Your task to perform on an android device: Play the last video I watched on Youtube Image 0: 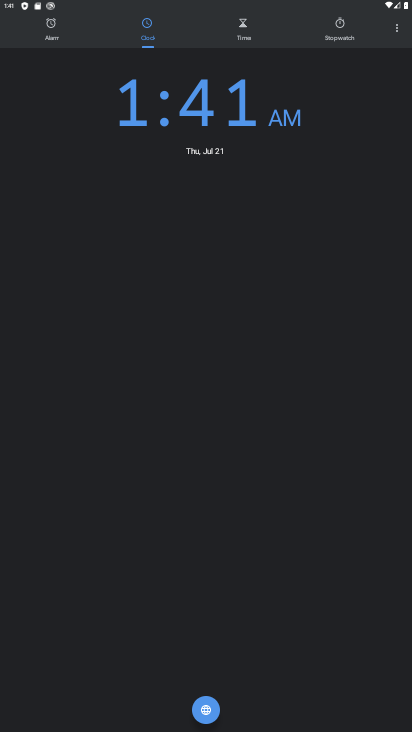
Step 0: press home button
Your task to perform on an android device: Play the last video I watched on Youtube Image 1: 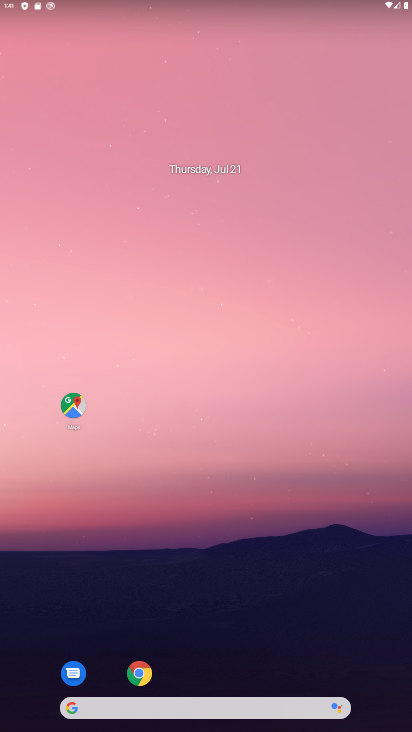
Step 1: drag from (173, 672) to (217, 122)
Your task to perform on an android device: Play the last video I watched on Youtube Image 2: 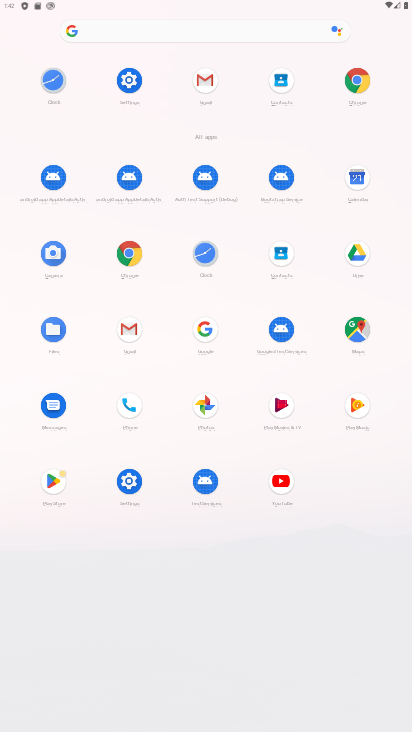
Step 2: click (279, 489)
Your task to perform on an android device: Play the last video I watched on Youtube Image 3: 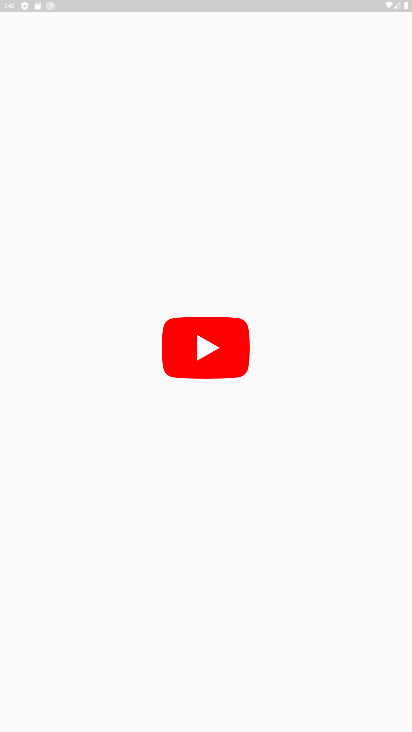
Step 3: click (280, 482)
Your task to perform on an android device: Play the last video I watched on Youtube Image 4: 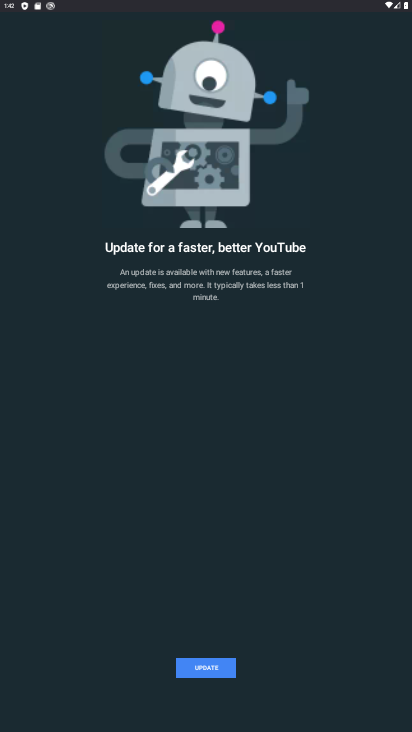
Step 4: click (192, 671)
Your task to perform on an android device: Play the last video I watched on Youtube Image 5: 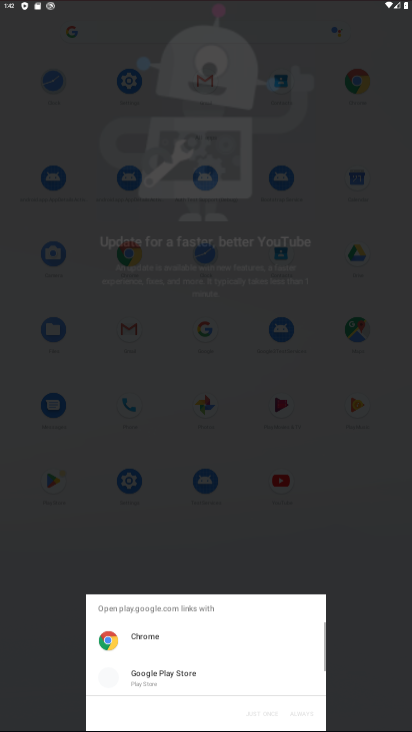
Step 5: click (208, 671)
Your task to perform on an android device: Play the last video I watched on Youtube Image 6: 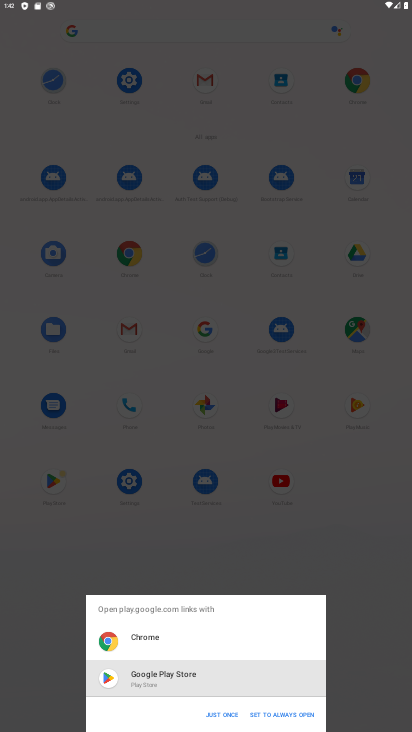
Step 6: click (268, 720)
Your task to perform on an android device: Play the last video I watched on Youtube Image 7: 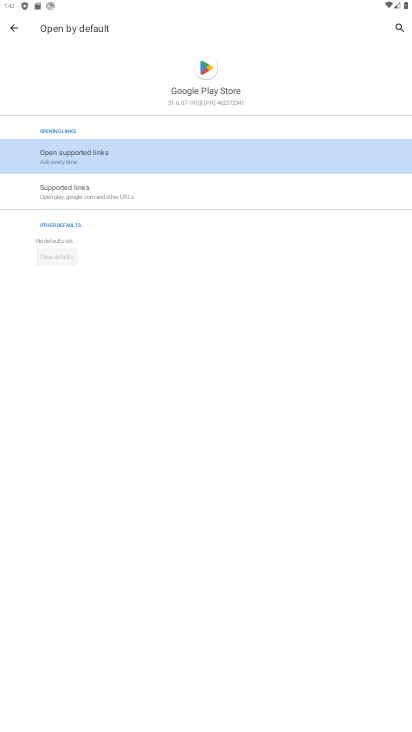
Step 7: click (74, 148)
Your task to perform on an android device: Play the last video I watched on Youtube Image 8: 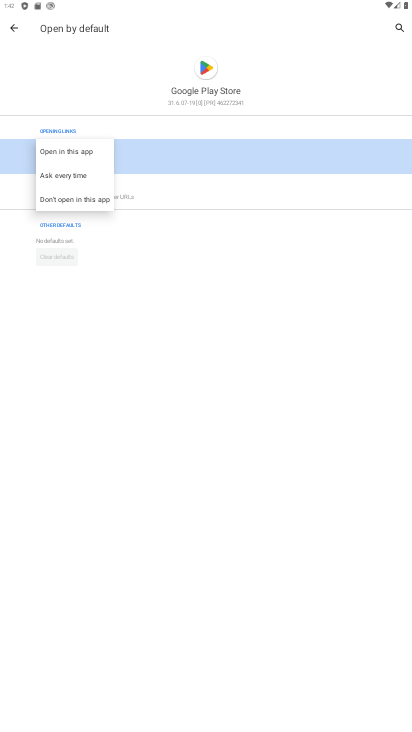
Step 8: click (60, 153)
Your task to perform on an android device: Play the last video I watched on Youtube Image 9: 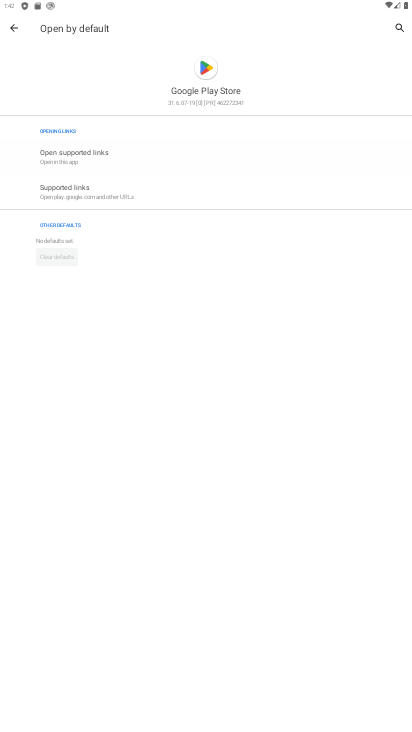
Step 9: click (14, 27)
Your task to perform on an android device: Play the last video I watched on Youtube Image 10: 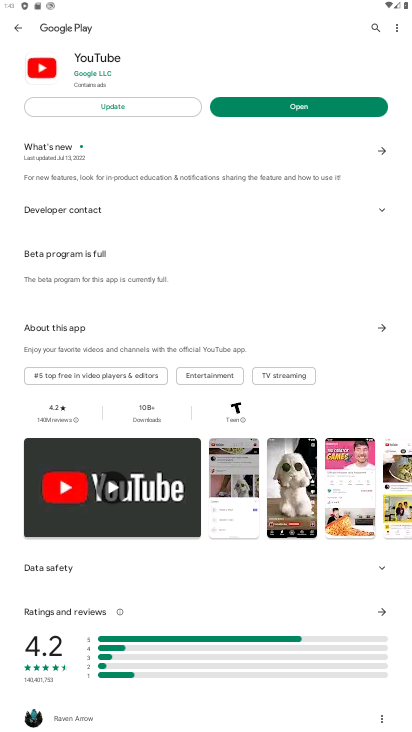
Step 10: click (71, 103)
Your task to perform on an android device: Play the last video I watched on Youtube Image 11: 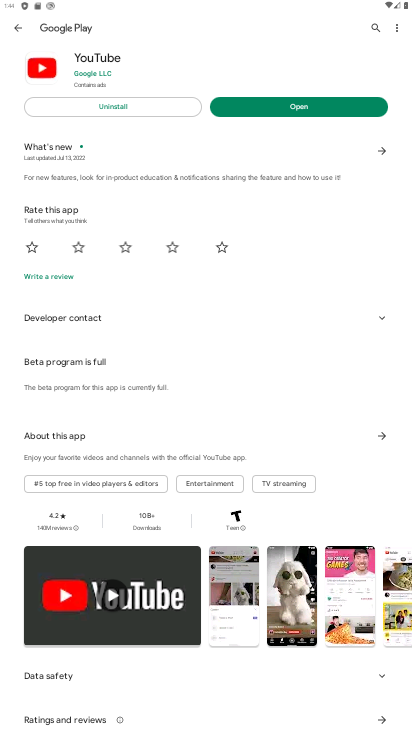
Step 11: click (271, 104)
Your task to perform on an android device: Play the last video I watched on Youtube Image 12: 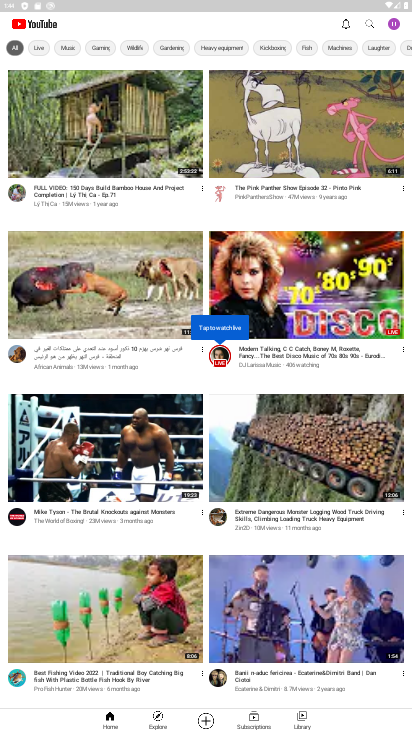
Step 12: click (301, 723)
Your task to perform on an android device: Play the last video I watched on Youtube Image 13: 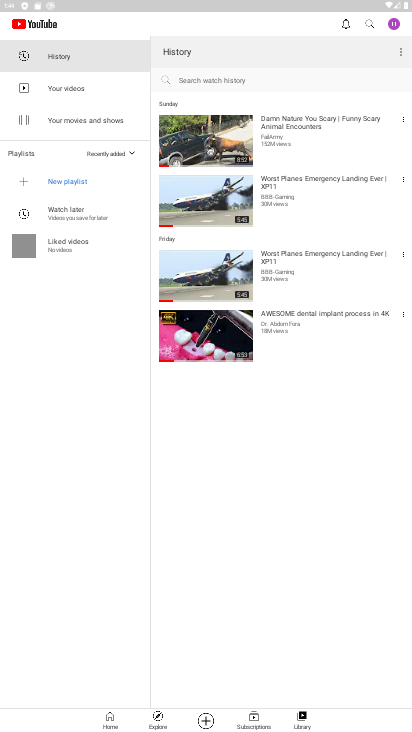
Step 13: task complete